Your task to perform on an android device: toggle improve location accuracy Image 0: 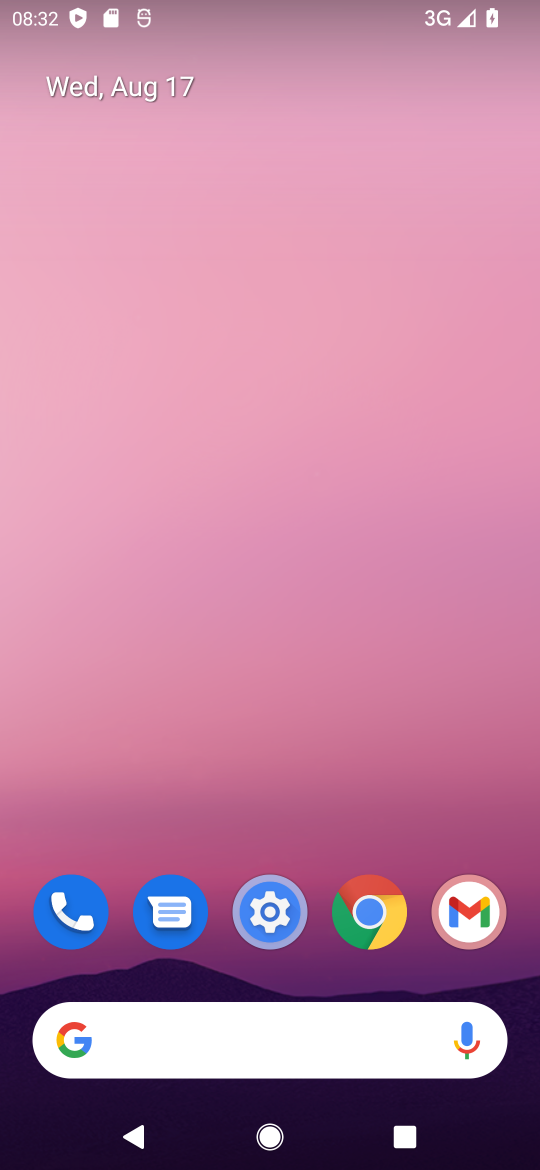
Step 0: drag from (298, 993) to (313, 291)
Your task to perform on an android device: toggle improve location accuracy Image 1: 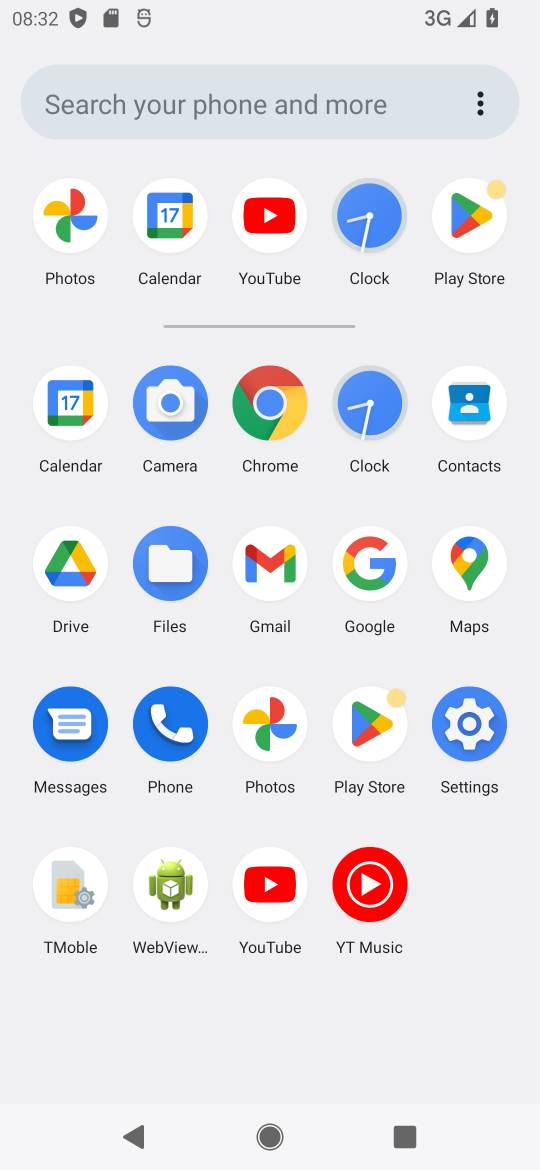
Step 1: click (449, 730)
Your task to perform on an android device: toggle improve location accuracy Image 2: 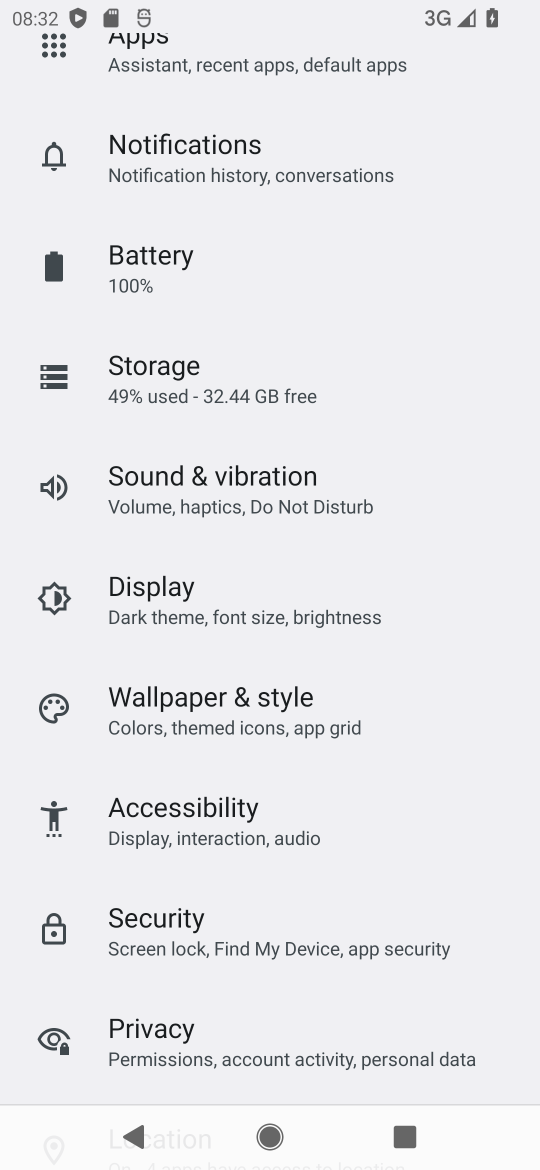
Step 2: drag from (214, 1047) to (299, 456)
Your task to perform on an android device: toggle improve location accuracy Image 3: 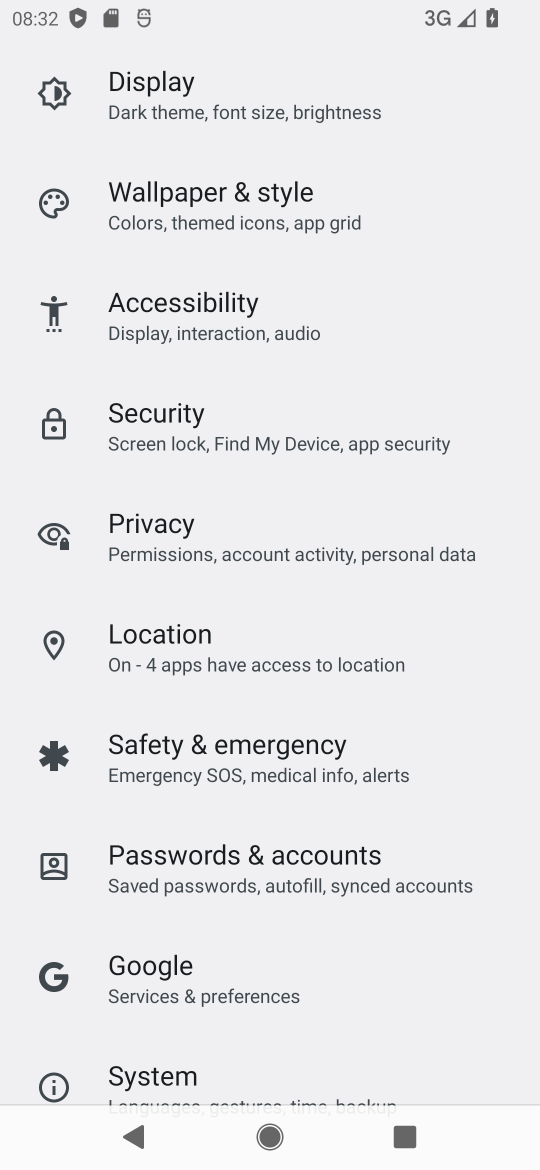
Step 3: click (174, 648)
Your task to perform on an android device: toggle improve location accuracy Image 4: 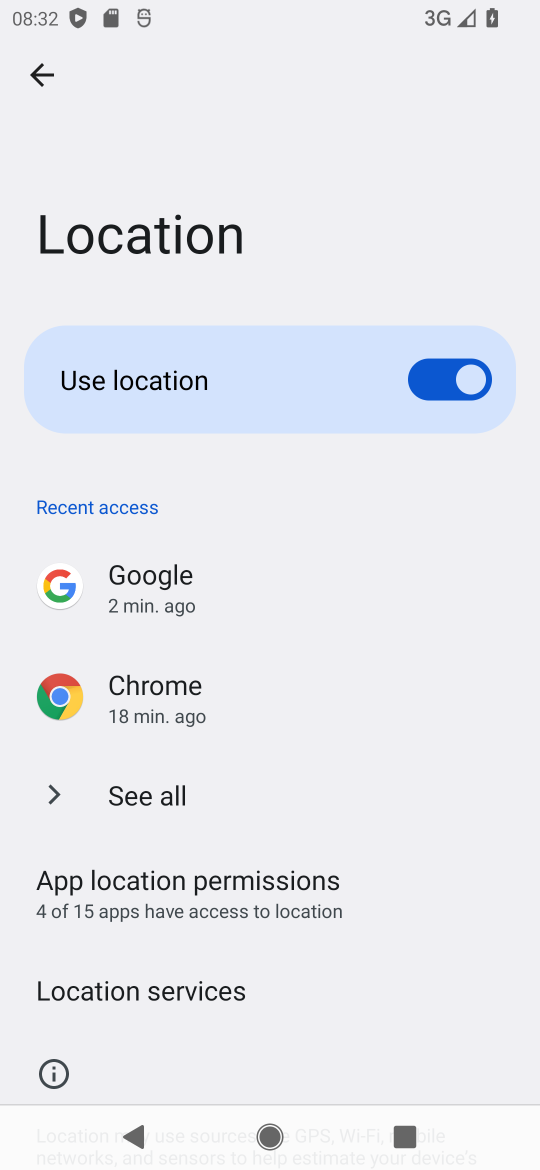
Step 4: click (159, 989)
Your task to perform on an android device: toggle improve location accuracy Image 5: 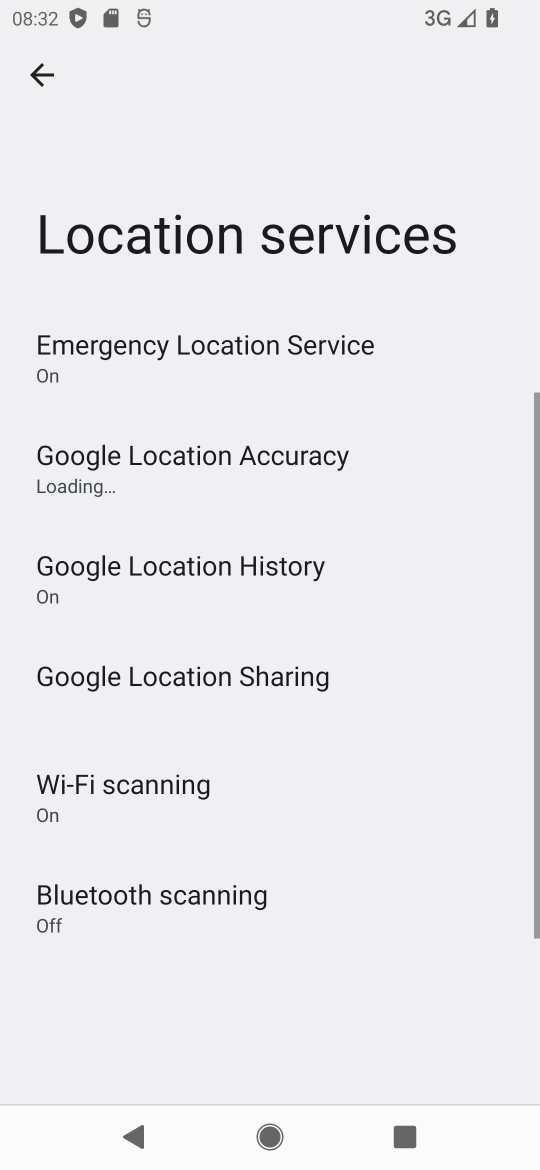
Step 5: drag from (238, 1007) to (333, 475)
Your task to perform on an android device: toggle improve location accuracy Image 6: 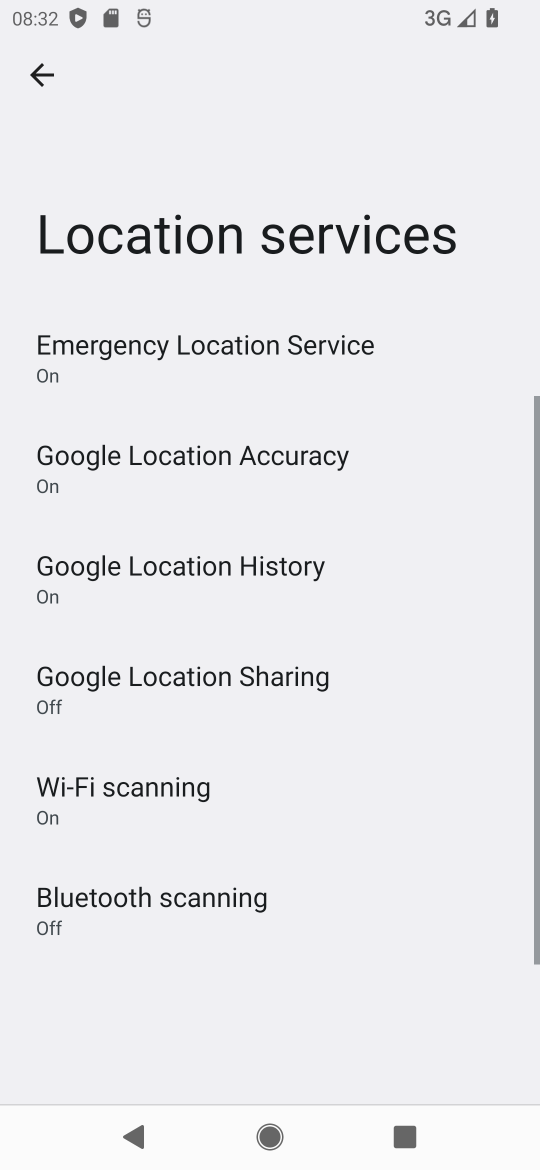
Step 6: click (308, 465)
Your task to perform on an android device: toggle improve location accuracy Image 7: 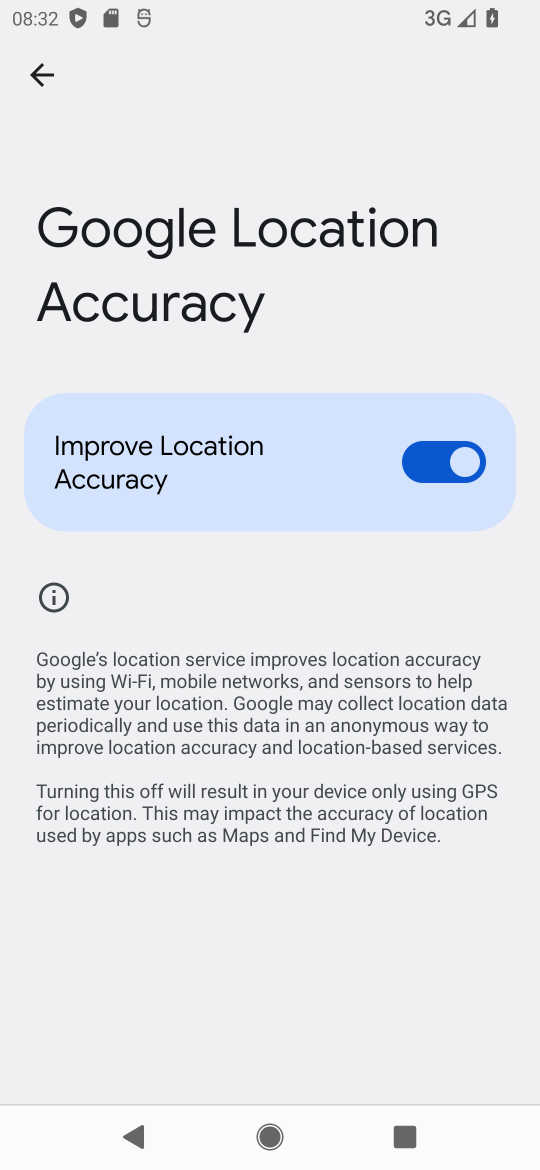
Step 7: click (462, 460)
Your task to perform on an android device: toggle improve location accuracy Image 8: 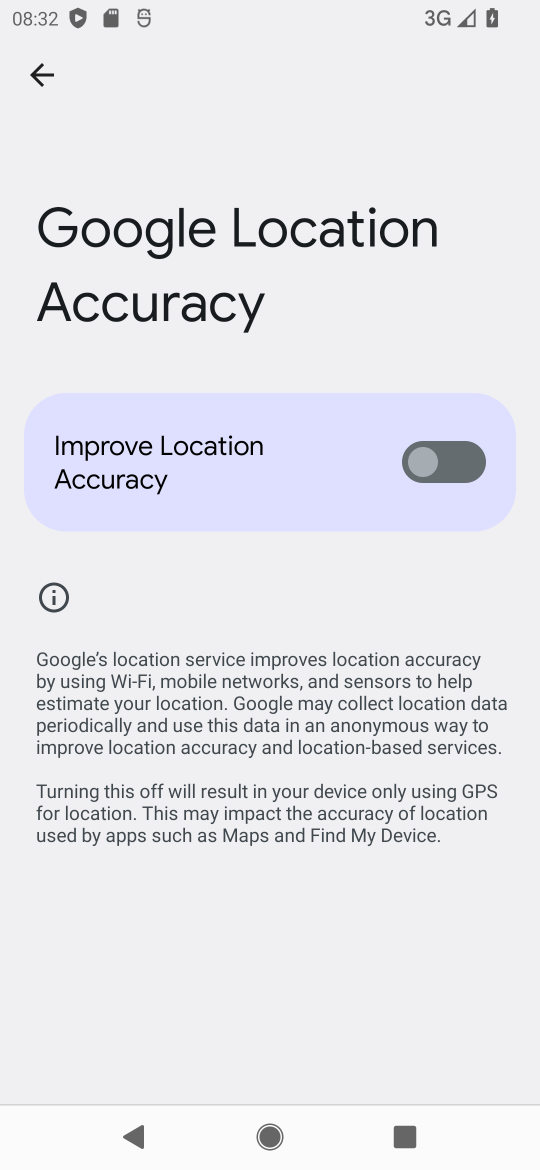
Step 8: task complete